Your task to perform on an android device: When is my next appointment? Image 0: 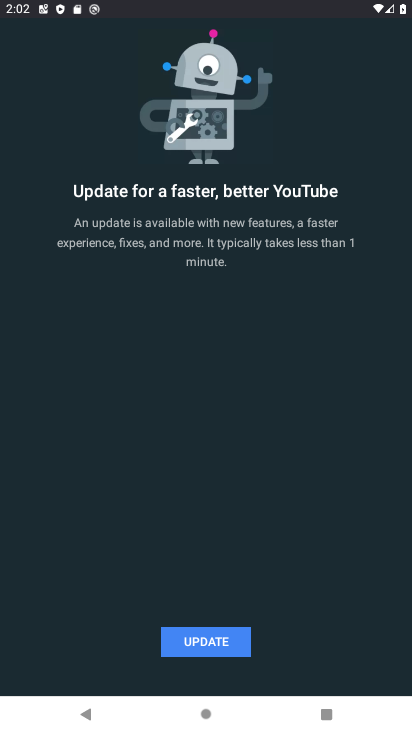
Step 0: press back button
Your task to perform on an android device: When is my next appointment? Image 1: 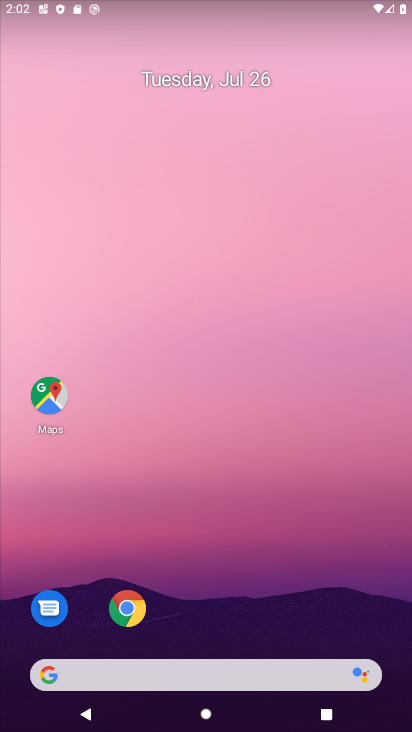
Step 1: drag from (302, 617) to (10, 24)
Your task to perform on an android device: When is my next appointment? Image 2: 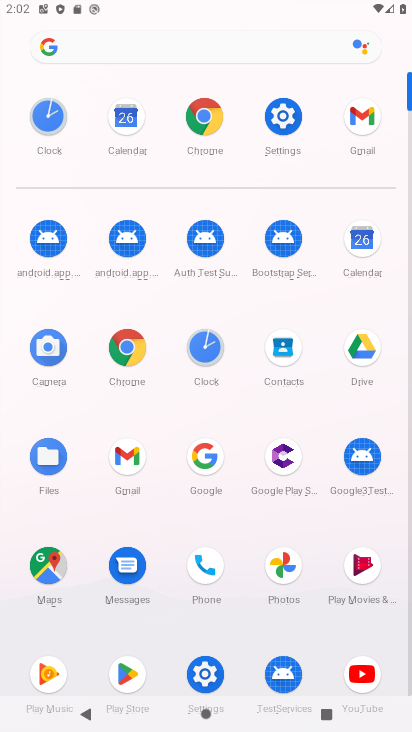
Step 2: click (264, 137)
Your task to perform on an android device: When is my next appointment? Image 3: 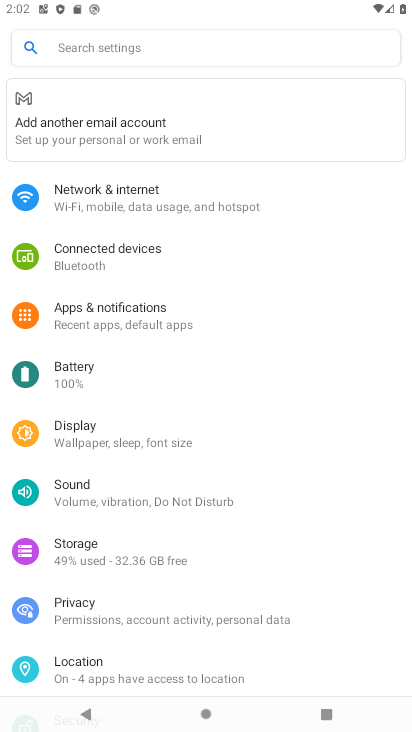
Step 3: press home button
Your task to perform on an android device: When is my next appointment? Image 4: 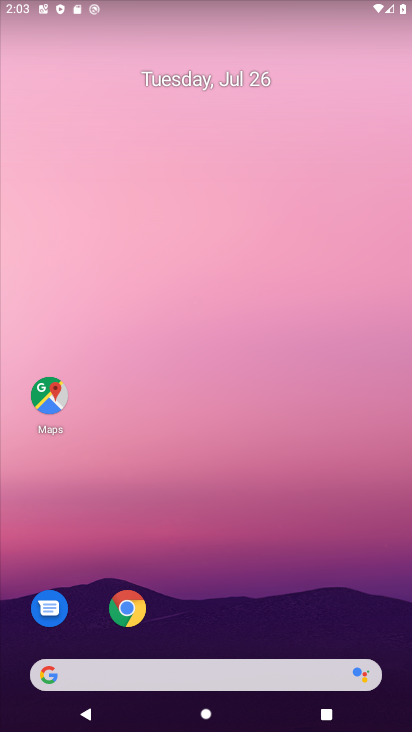
Step 4: drag from (300, 625) to (312, 87)
Your task to perform on an android device: When is my next appointment? Image 5: 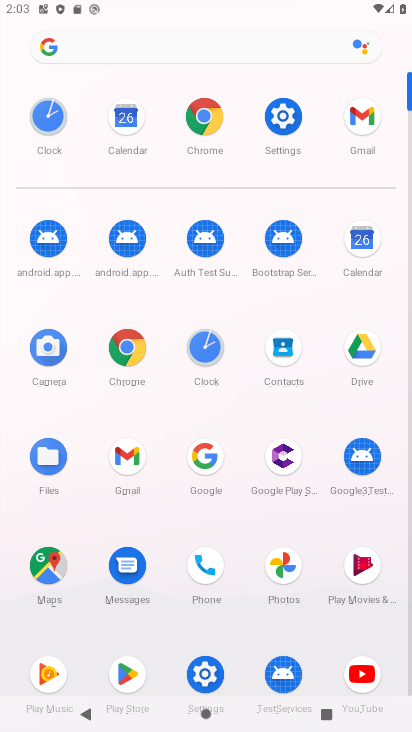
Step 5: click (136, 138)
Your task to perform on an android device: When is my next appointment? Image 6: 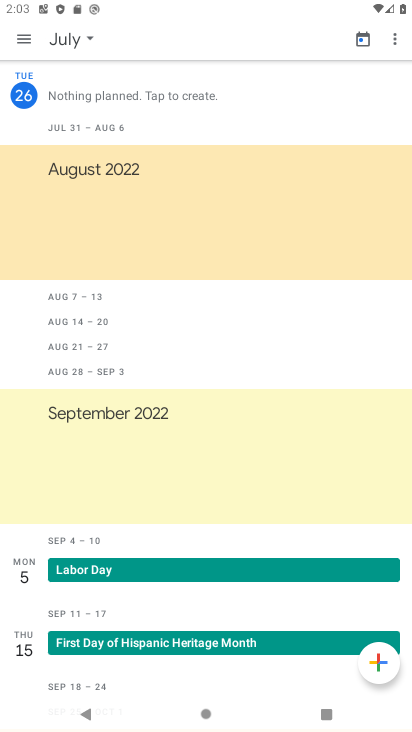
Step 6: task complete